Your task to perform on an android device: Open settings Image 0: 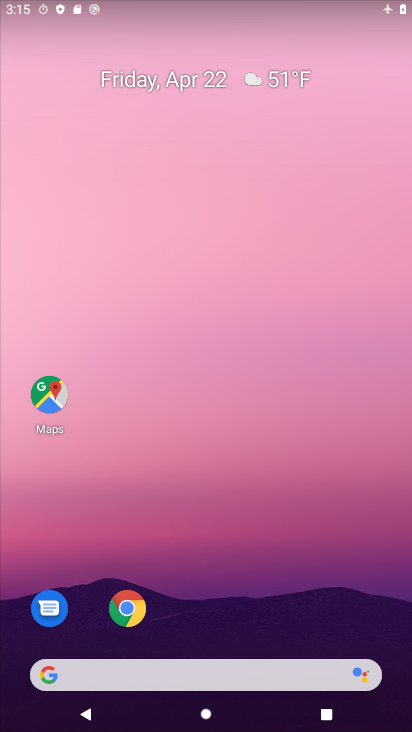
Step 0: drag from (262, 573) to (283, 40)
Your task to perform on an android device: Open settings Image 1: 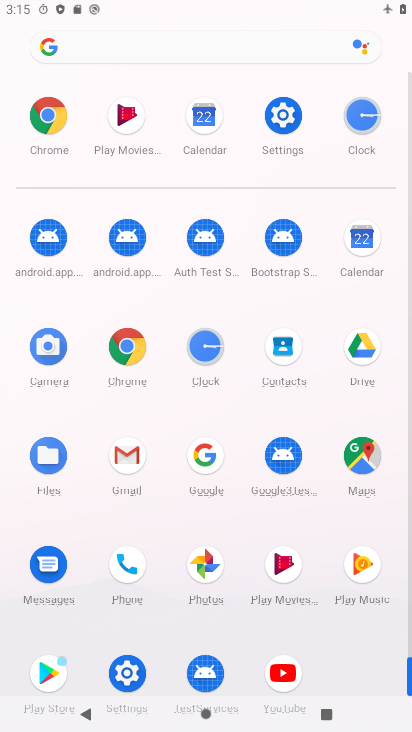
Step 1: click (289, 110)
Your task to perform on an android device: Open settings Image 2: 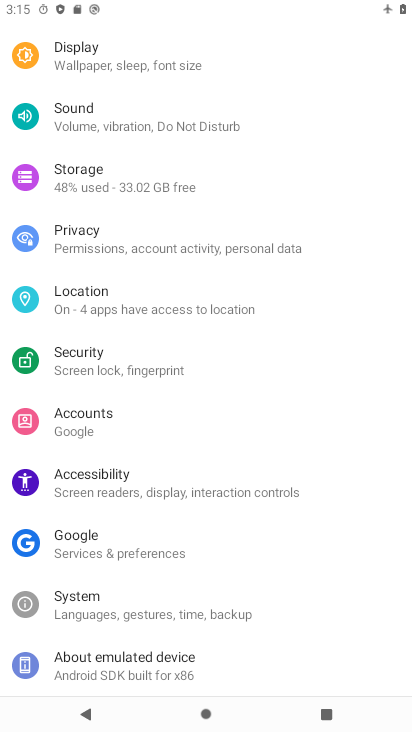
Step 2: task complete